Your task to perform on an android device: See recent photos Image 0: 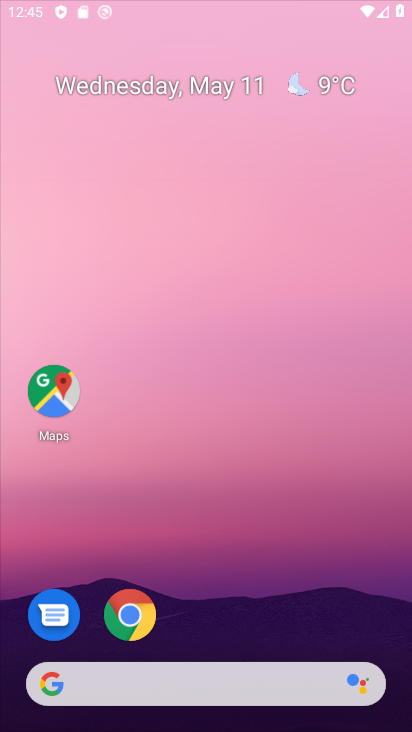
Step 0: drag from (272, 638) to (269, 197)
Your task to perform on an android device: See recent photos Image 1: 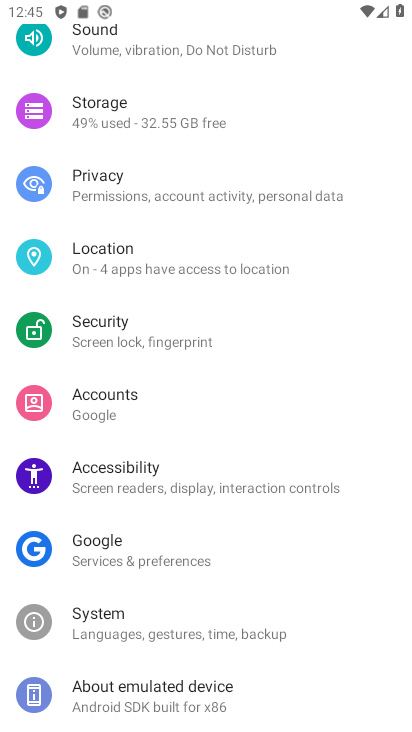
Step 1: press home button
Your task to perform on an android device: See recent photos Image 2: 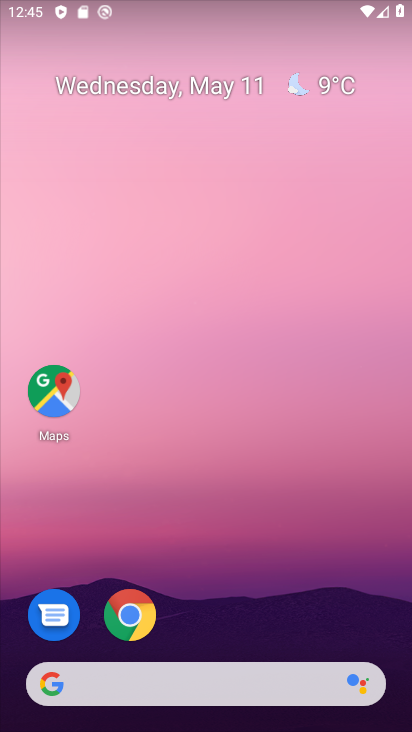
Step 2: drag from (241, 592) to (247, 68)
Your task to perform on an android device: See recent photos Image 3: 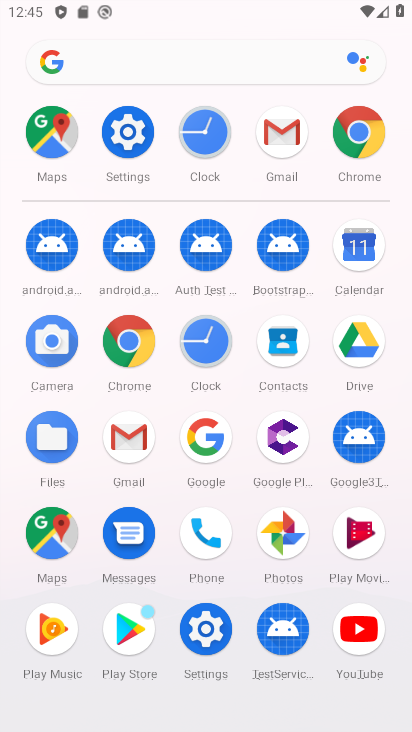
Step 3: click (268, 539)
Your task to perform on an android device: See recent photos Image 4: 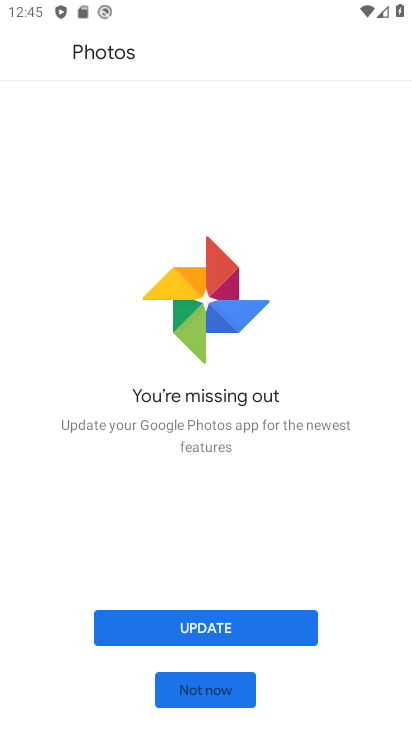
Step 4: click (192, 653)
Your task to perform on an android device: See recent photos Image 5: 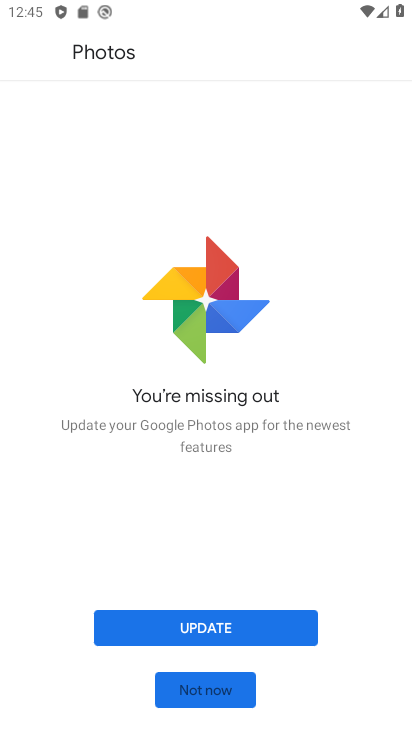
Step 5: click (196, 639)
Your task to perform on an android device: See recent photos Image 6: 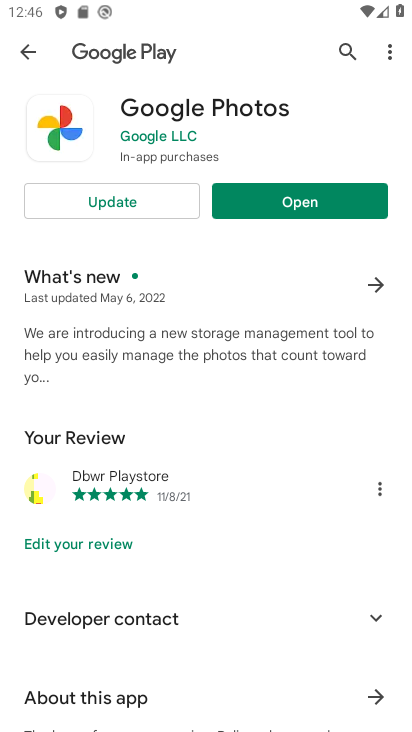
Step 6: click (191, 189)
Your task to perform on an android device: See recent photos Image 7: 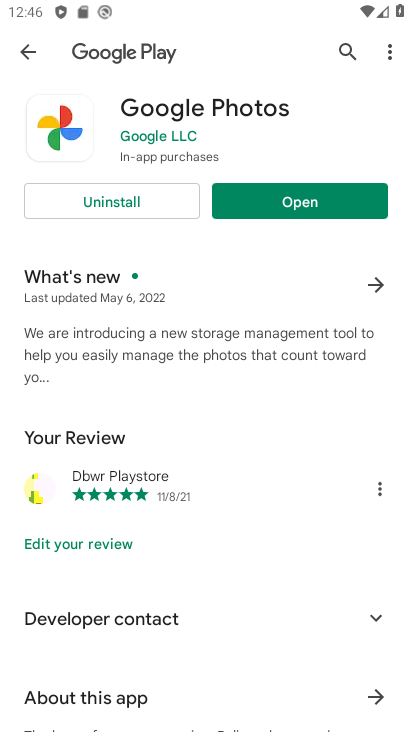
Step 7: click (284, 202)
Your task to perform on an android device: See recent photos Image 8: 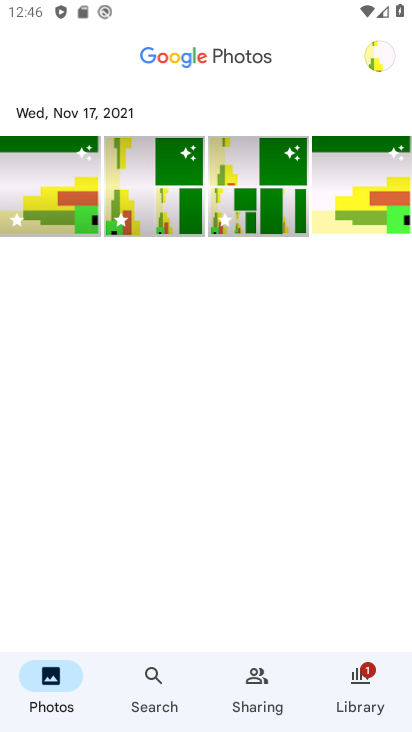
Step 8: task complete